Your task to perform on an android device: set an alarm Image 0: 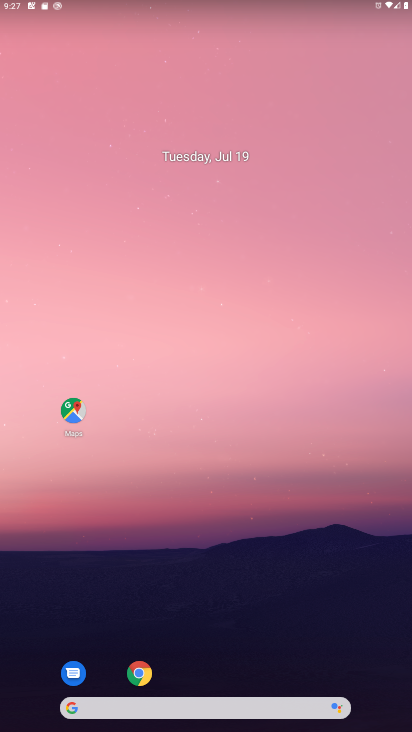
Step 0: drag from (365, 651) to (360, 261)
Your task to perform on an android device: set an alarm Image 1: 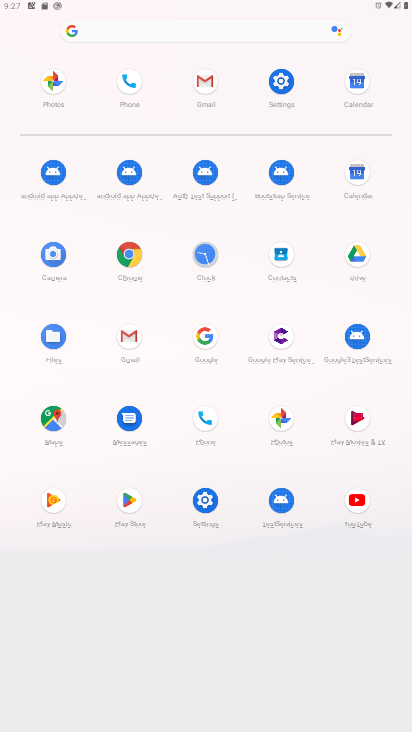
Step 1: click (207, 254)
Your task to perform on an android device: set an alarm Image 2: 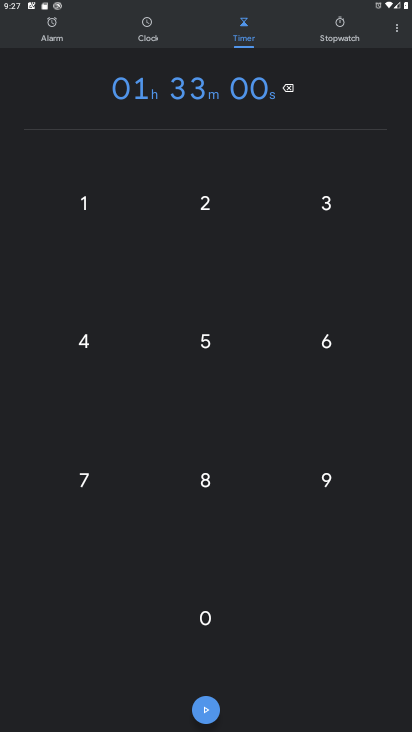
Step 2: click (61, 39)
Your task to perform on an android device: set an alarm Image 3: 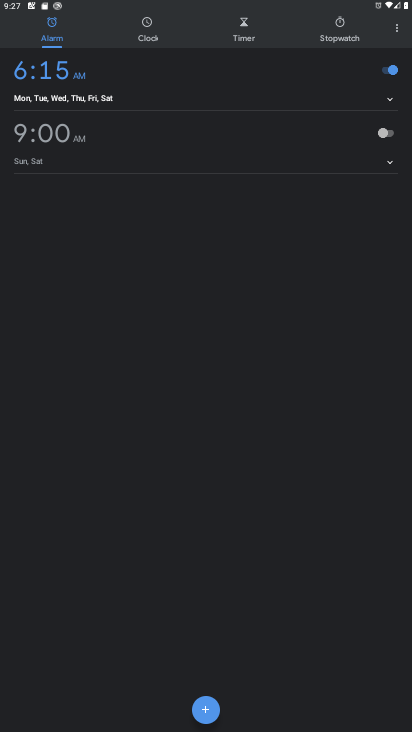
Step 3: click (47, 127)
Your task to perform on an android device: set an alarm Image 4: 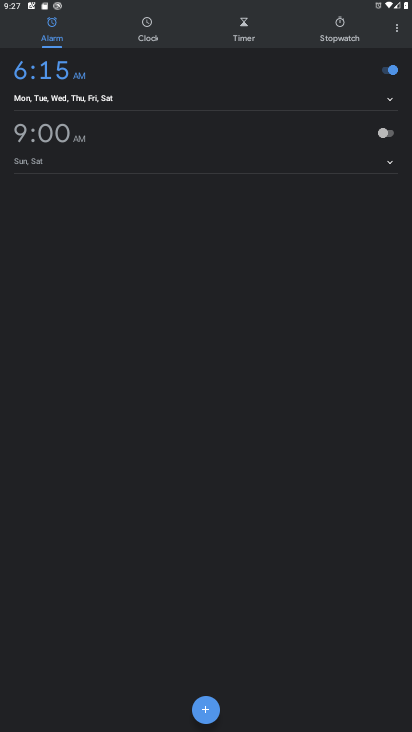
Step 4: click (47, 127)
Your task to perform on an android device: set an alarm Image 5: 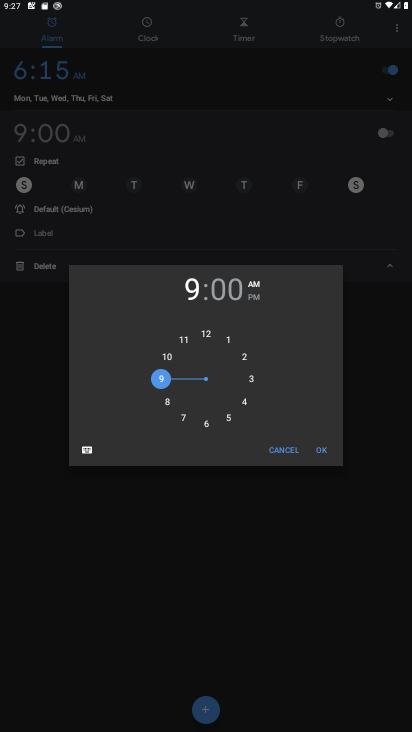
Step 5: click (227, 423)
Your task to perform on an android device: set an alarm Image 6: 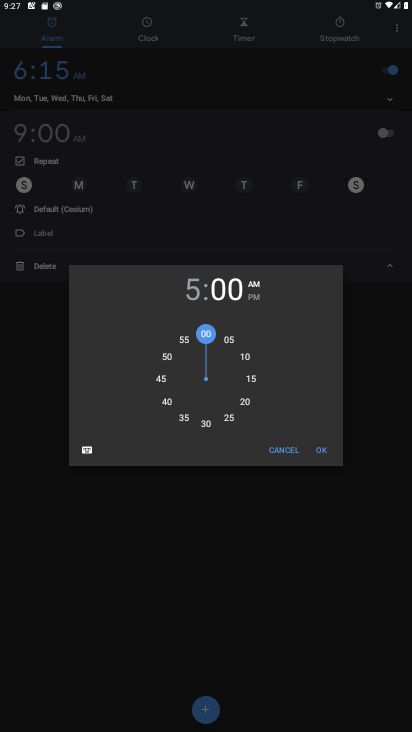
Step 6: click (322, 452)
Your task to perform on an android device: set an alarm Image 7: 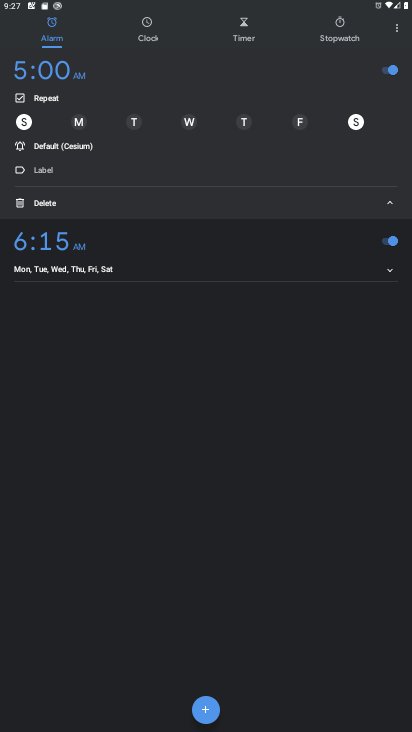
Step 7: click (85, 128)
Your task to perform on an android device: set an alarm Image 8: 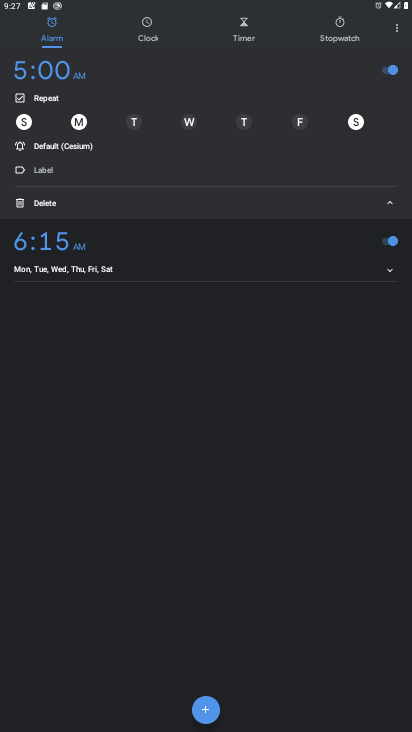
Step 8: click (136, 129)
Your task to perform on an android device: set an alarm Image 9: 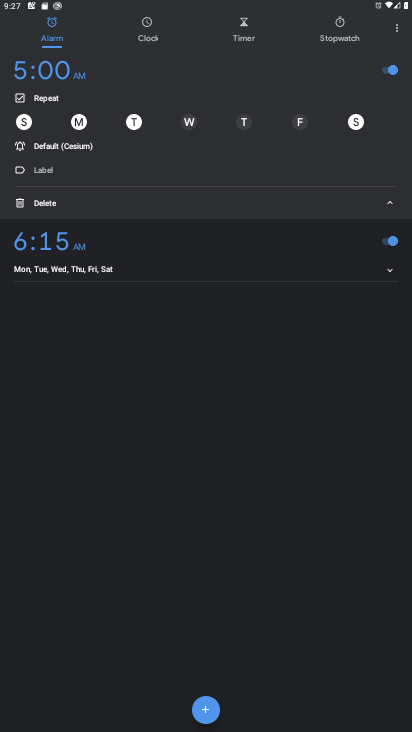
Step 9: click (193, 125)
Your task to perform on an android device: set an alarm Image 10: 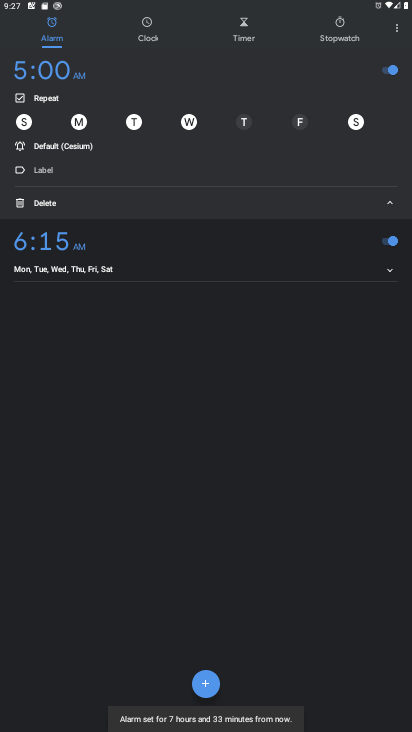
Step 10: click (238, 125)
Your task to perform on an android device: set an alarm Image 11: 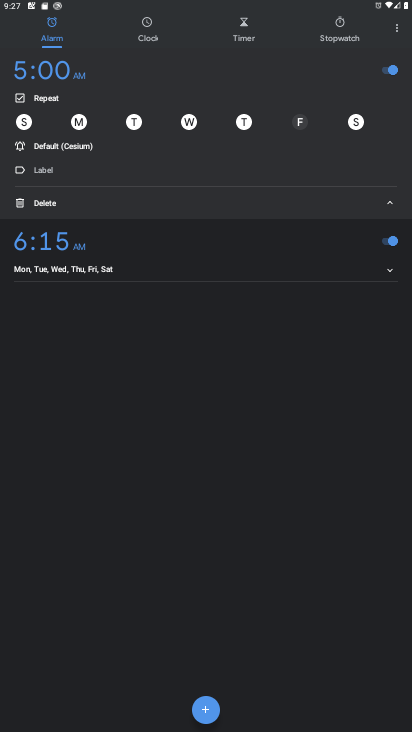
Step 11: click (299, 128)
Your task to perform on an android device: set an alarm Image 12: 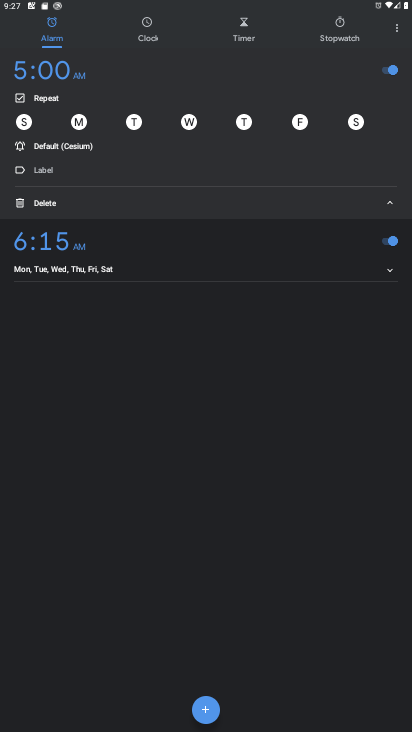
Step 12: click (26, 126)
Your task to perform on an android device: set an alarm Image 13: 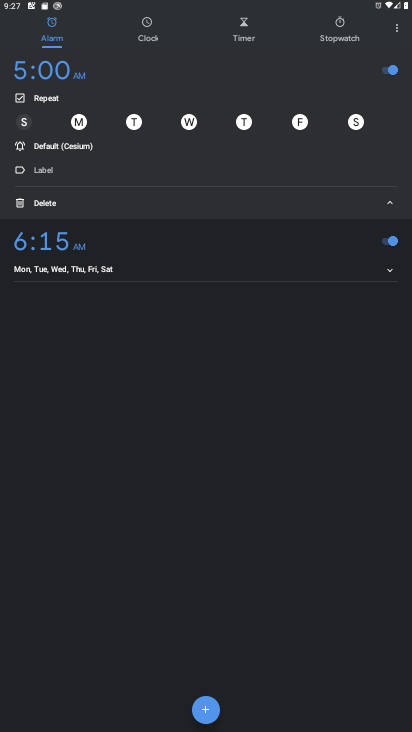
Step 13: click (388, 205)
Your task to perform on an android device: set an alarm Image 14: 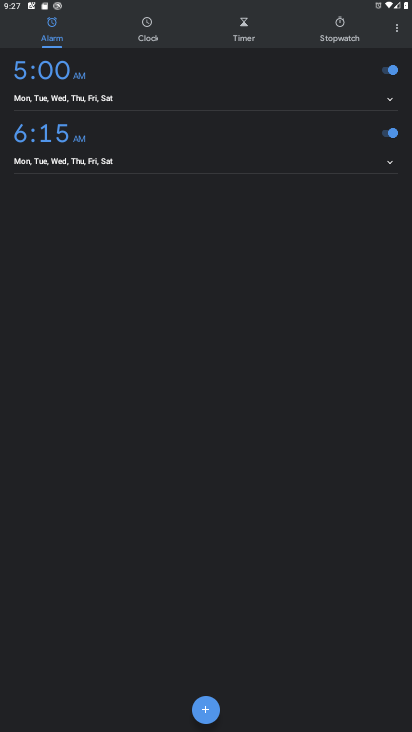
Step 14: task complete